Your task to perform on an android device: Open internet settings Image 0: 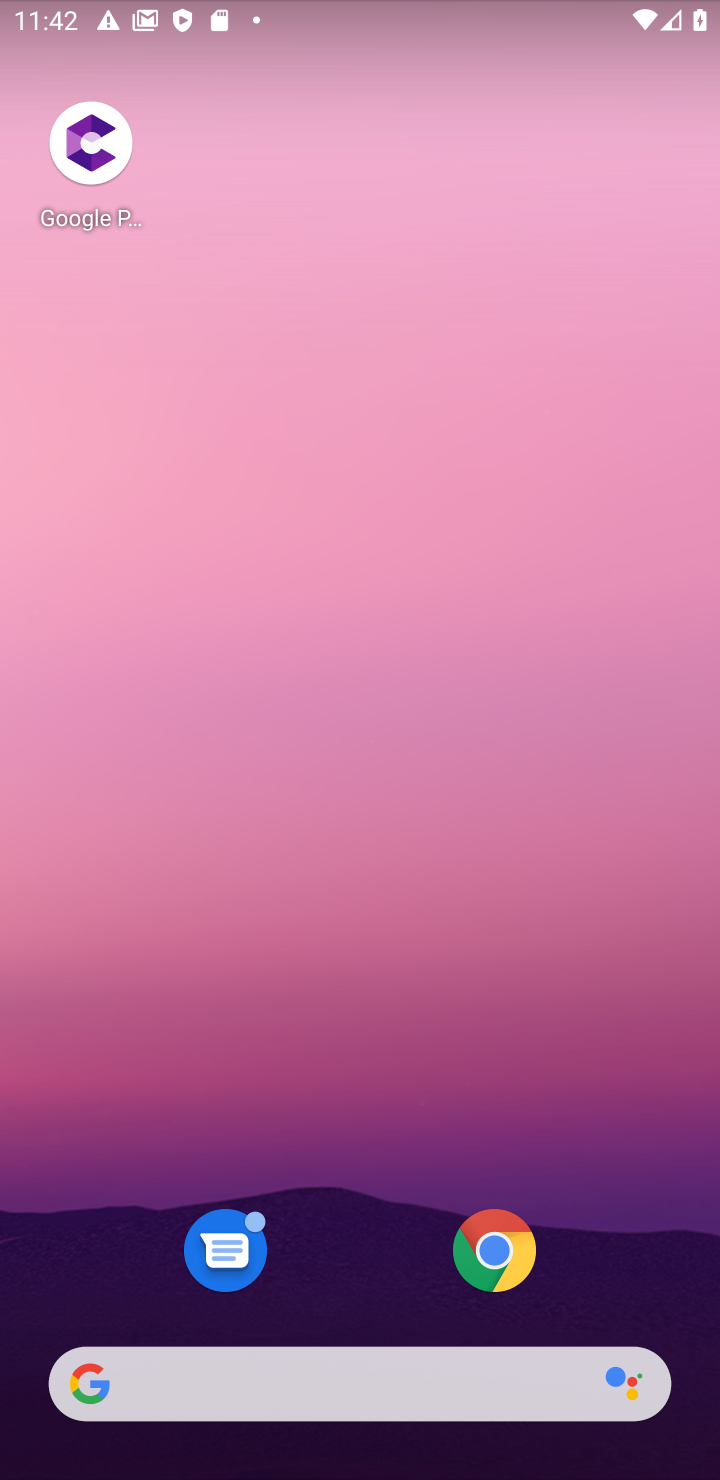
Step 0: drag from (353, 1076) to (403, 219)
Your task to perform on an android device: Open internet settings Image 1: 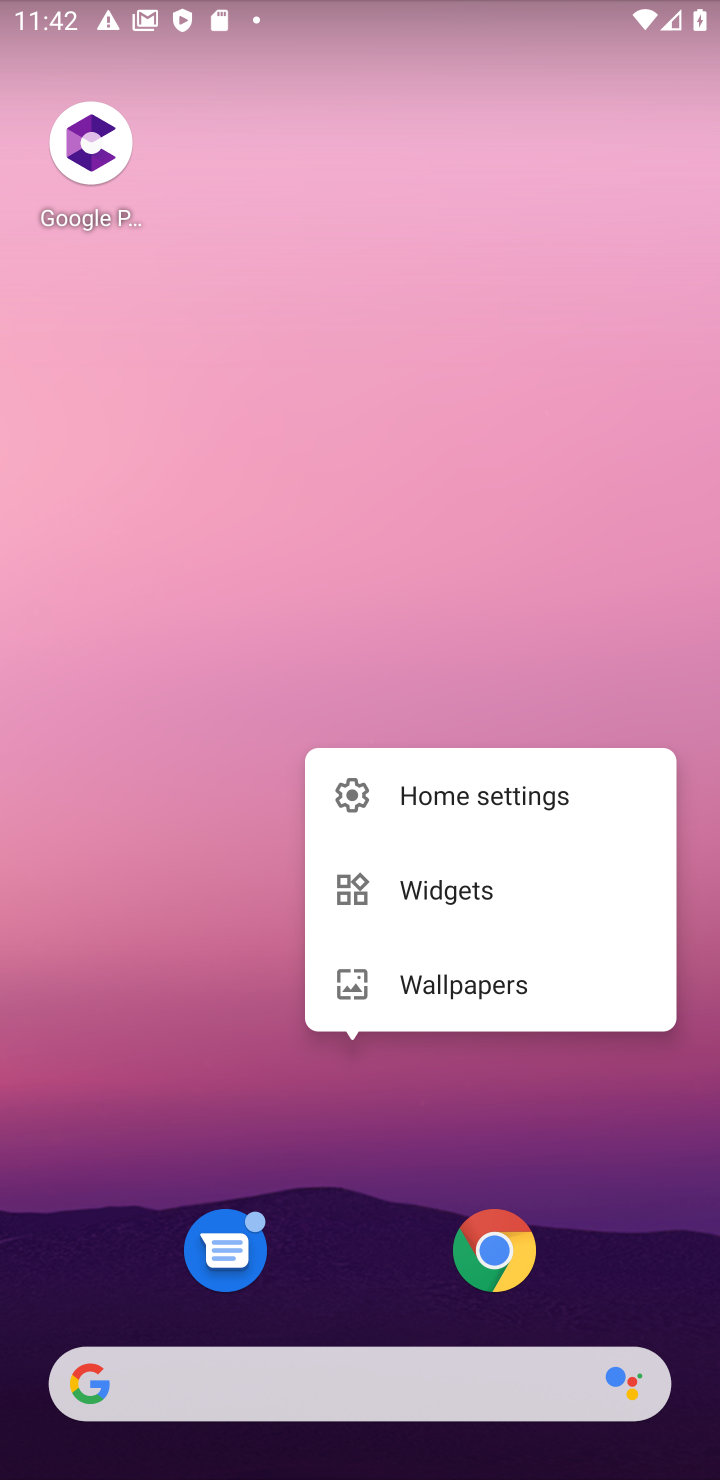
Step 1: click (346, 1186)
Your task to perform on an android device: Open internet settings Image 2: 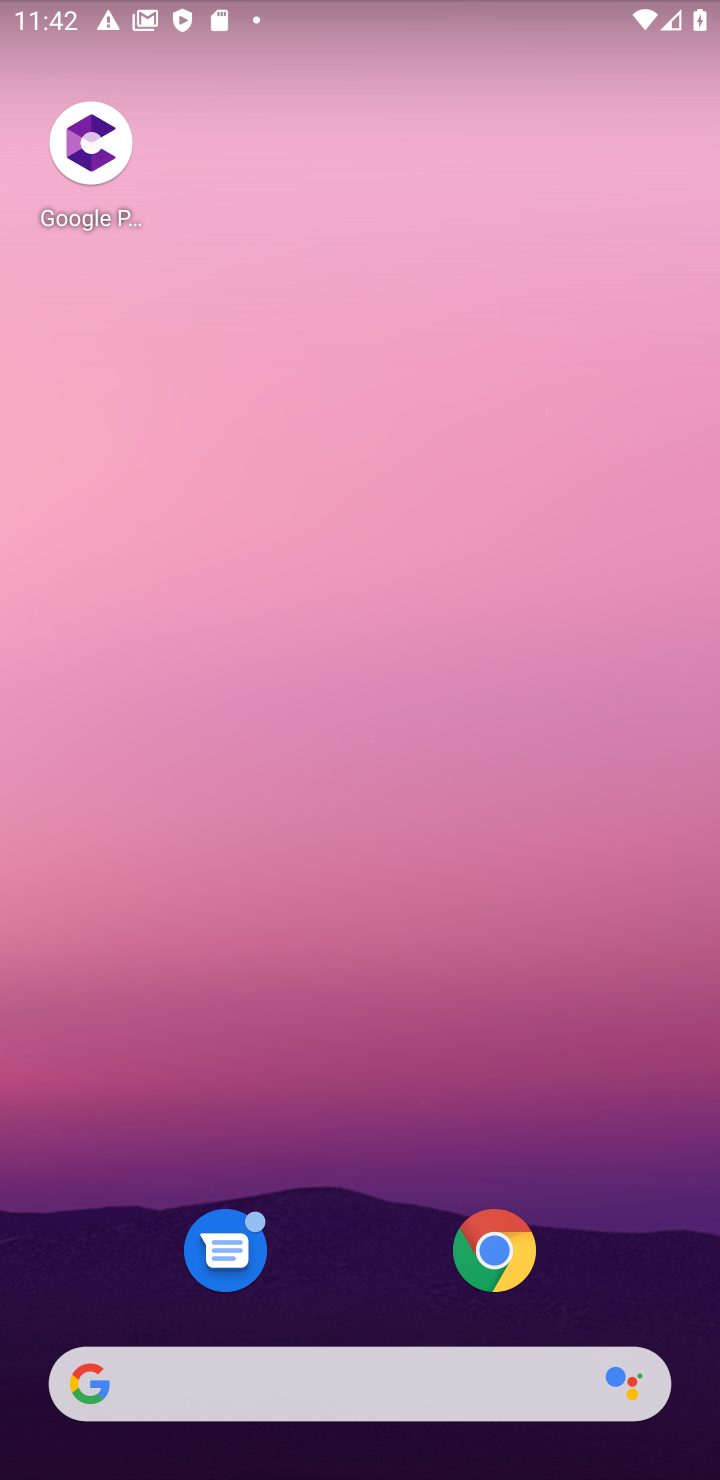
Step 2: drag from (346, 1186) to (458, 265)
Your task to perform on an android device: Open internet settings Image 3: 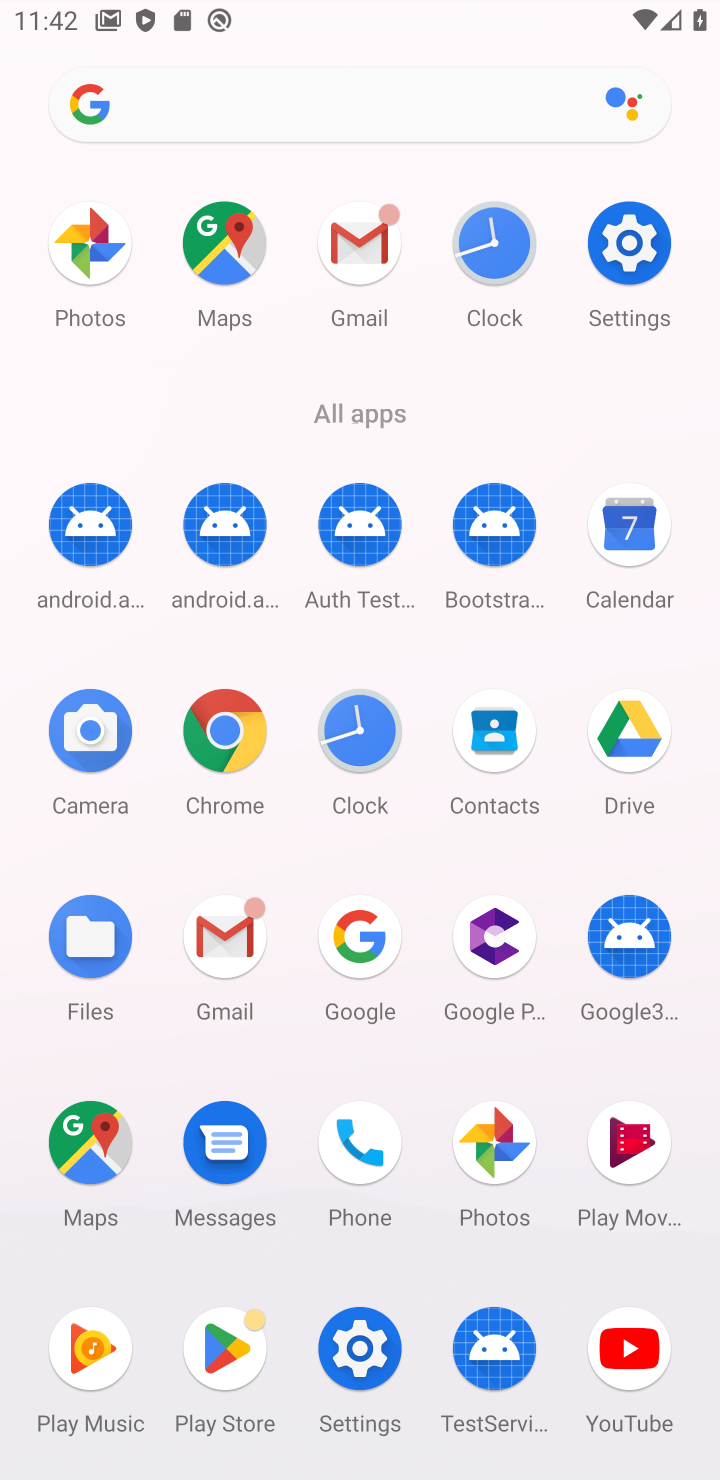
Step 3: click (350, 1340)
Your task to perform on an android device: Open internet settings Image 4: 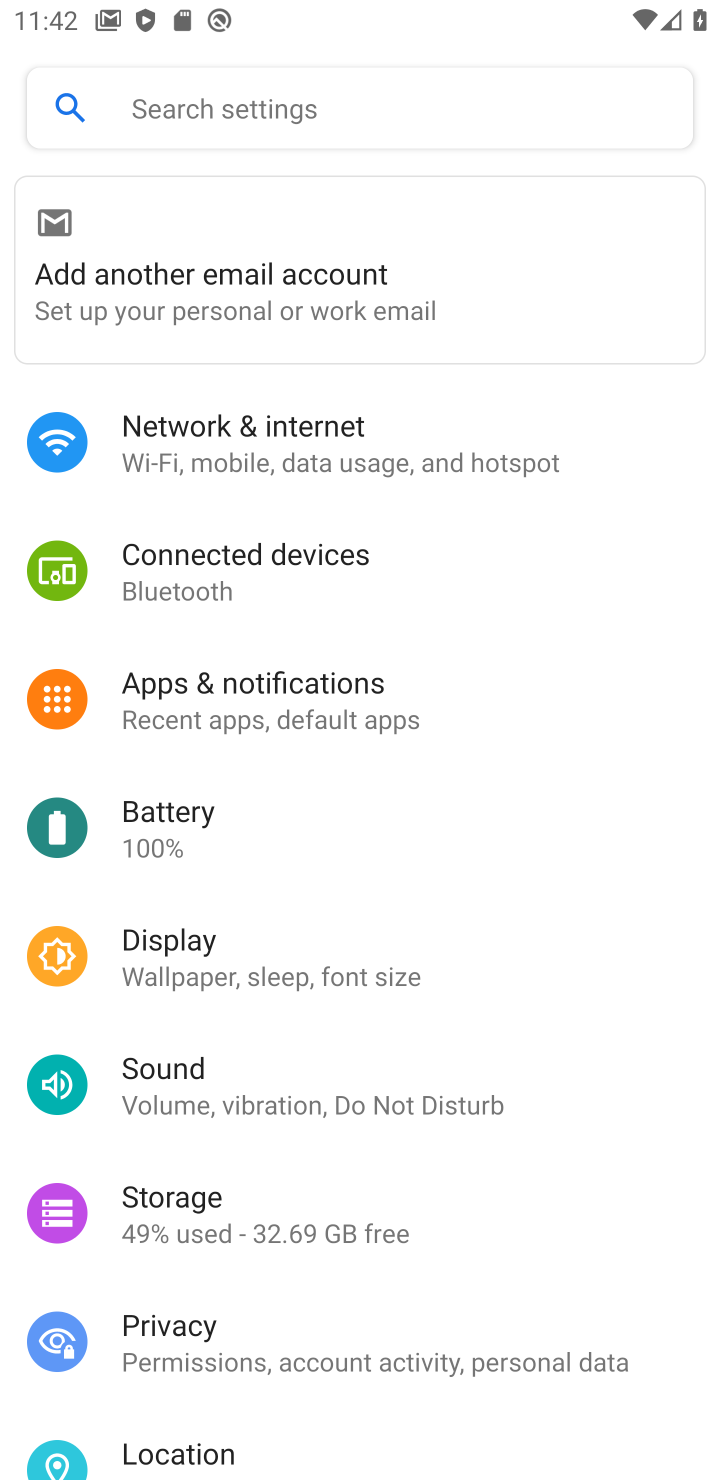
Step 4: task complete